Your task to perform on an android device: turn on bluetooth scan Image 0: 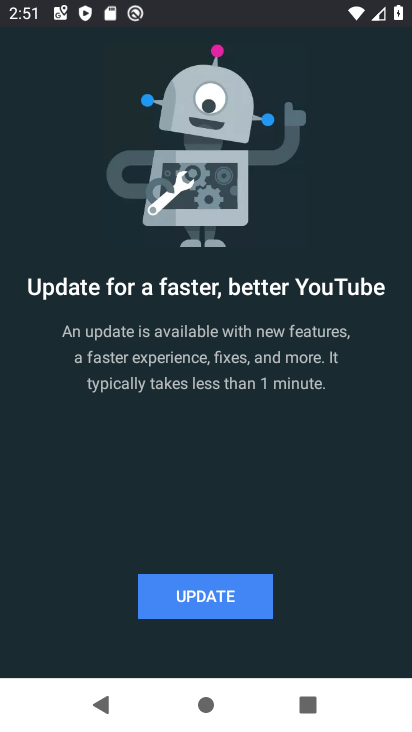
Step 0: press back button
Your task to perform on an android device: turn on bluetooth scan Image 1: 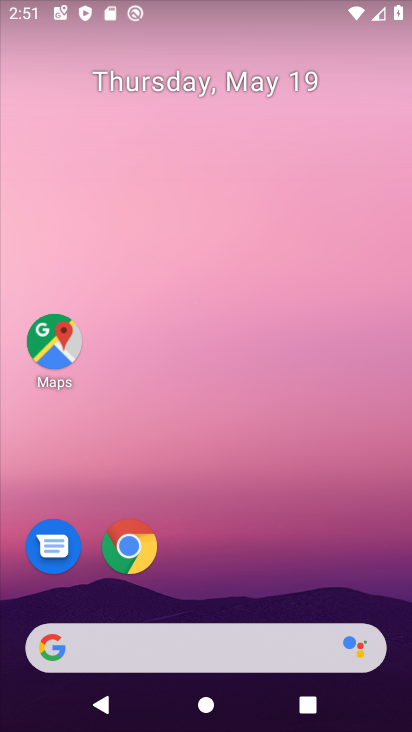
Step 1: drag from (249, 568) to (145, 215)
Your task to perform on an android device: turn on bluetooth scan Image 2: 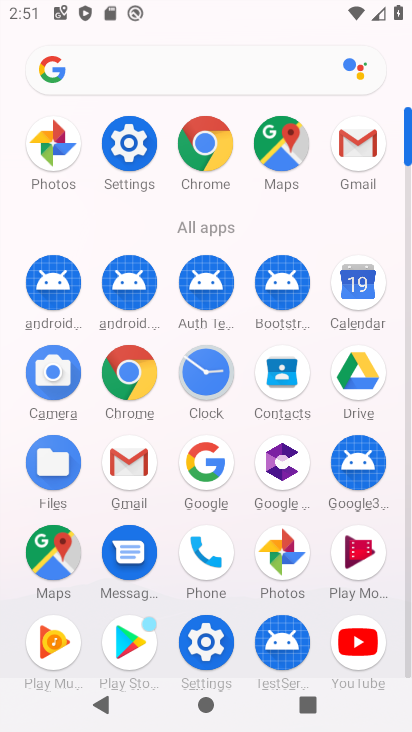
Step 2: click (129, 144)
Your task to perform on an android device: turn on bluetooth scan Image 3: 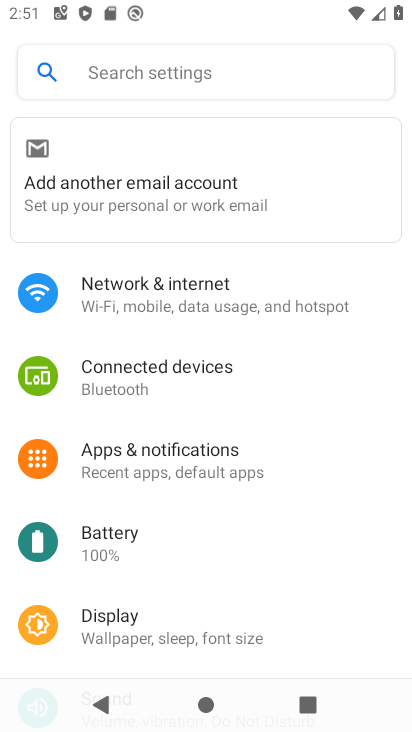
Step 3: drag from (164, 506) to (201, 422)
Your task to perform on an android device: turn on bluetooth scan Image 4: 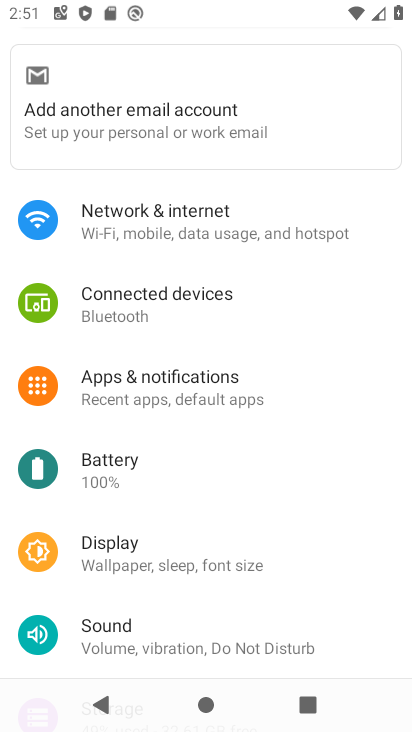
Step 4: drag from (156, 593) to (213, 514)
Your task to perform on an android device: turn on bluetooth scan Image 5: 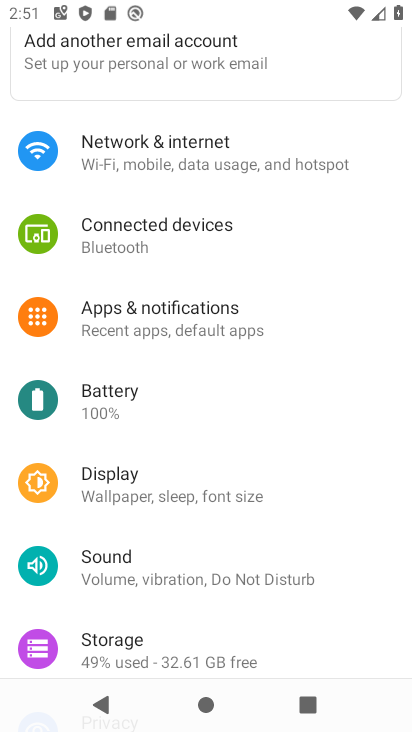
Step 5: drag from (175, 593) to (215, 523)
Your task to perform on an android device: turn on bluetooth scan Image 6: 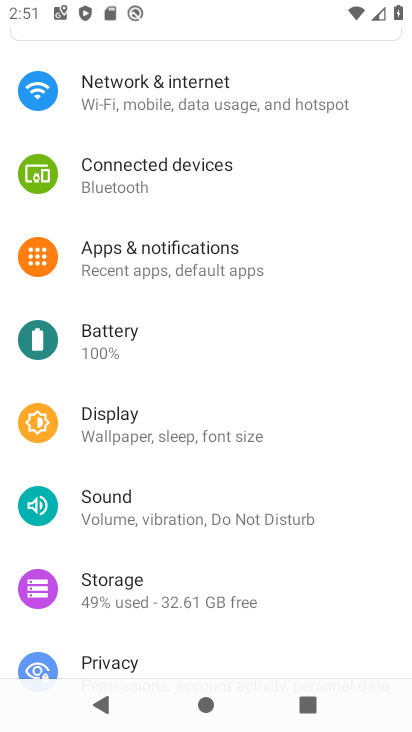
Step 6: drag from (147, 620) to (209, 531)
Your task to perform on an android device: turn on bluetooth scan Image 7: 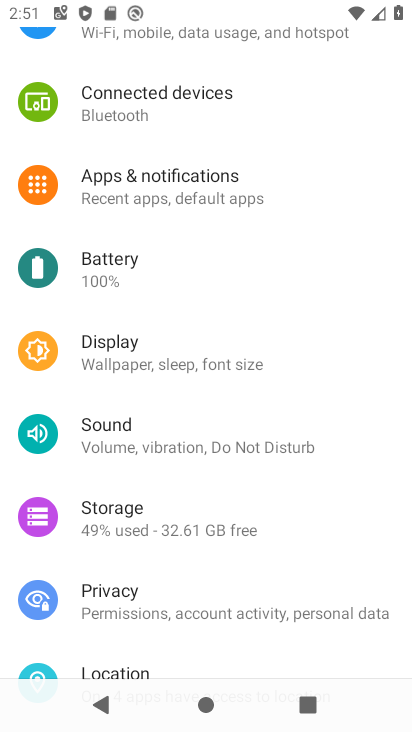
Step 7: drag from (139, 633) to (198, 537)
Your task to perform on an android device: turn on bluetooth scan Image 8: 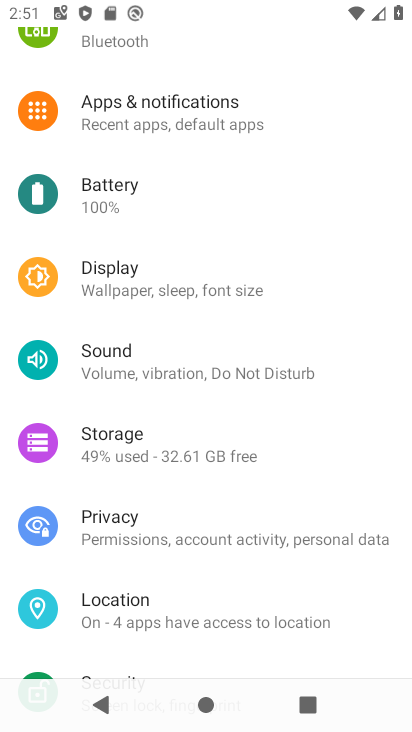
Step 8: click (120, 615)
Your task to perform on an android device: turn on bluetooth scan Image 9: 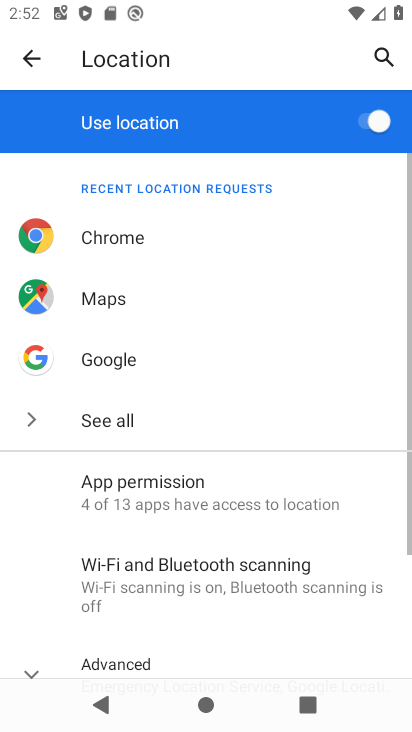
Step 9: click (170, 571)
Your task to perform on an android device: turn on bluetooth scan Image 10: 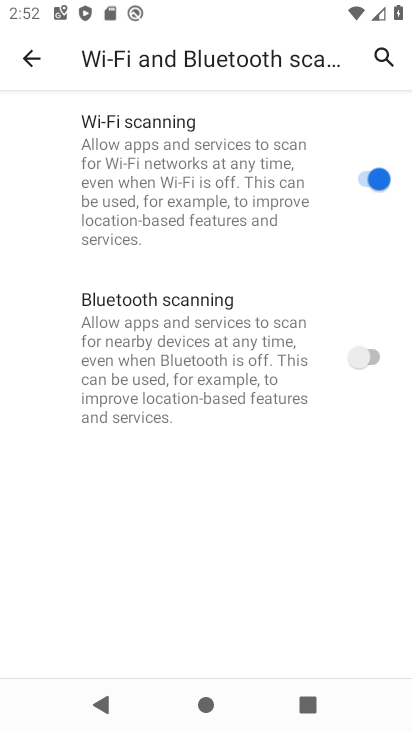
Step 10: click (352, 357)
Your task to perform on an android device: turn on bluetooth scan Image 11: 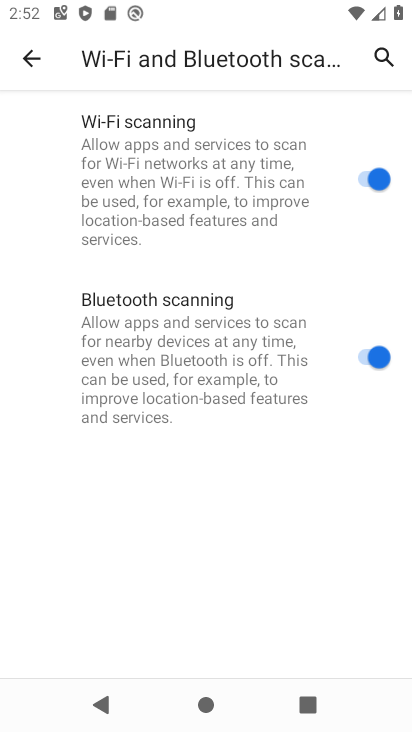
Step 11: task complete